Your task to perform on an android device: stop showing notifications on the lock screen Image 0: 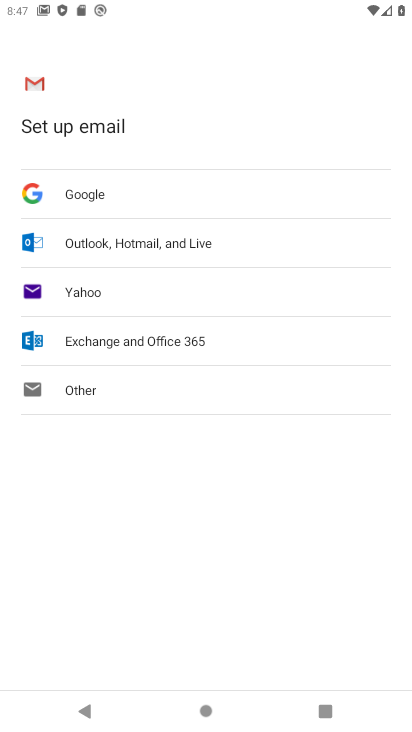
Step 0: press home button
Your task to perform on an android device: stop showing notifications on the lock screen Image 1: 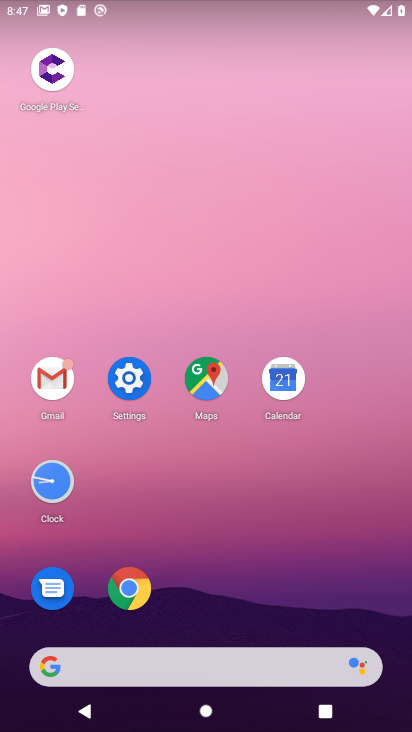
Step 1: click (133, 376)
Your task to perform on an android device: stop showing notifications on the lock screen Image 2: 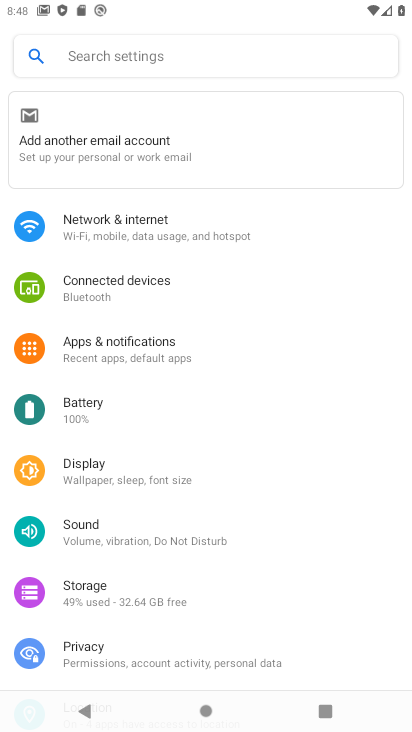
Step 2: click (128, 350)
Your task to perform on an android device: stop showing notifications on the lock screen Image 3: 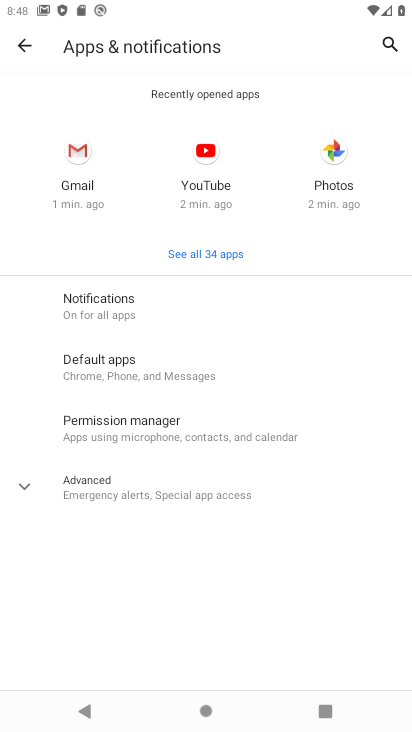
Step 3: click (117, 305)
Your task to perform on an android device: stop showing notifications on the lock screen Image 4: 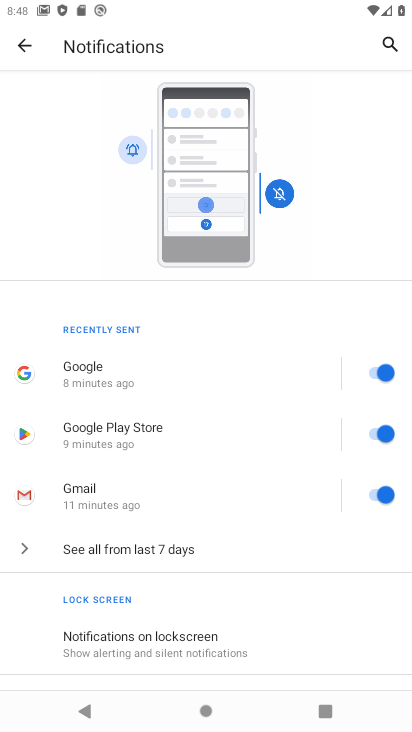
Step 4: click (85, 637)
Your task to perform on an android device: stop showing notifications on the lock screen Image 5: 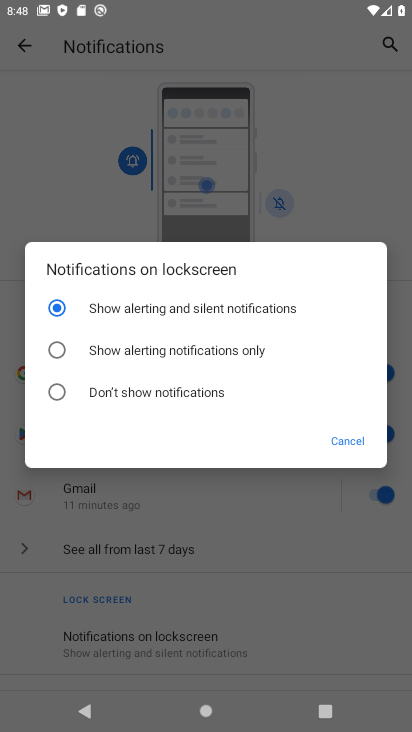
Step 5: click (56, 395)
Your task to perform on an android device: stop showing notifications on the lock screen Image 6: 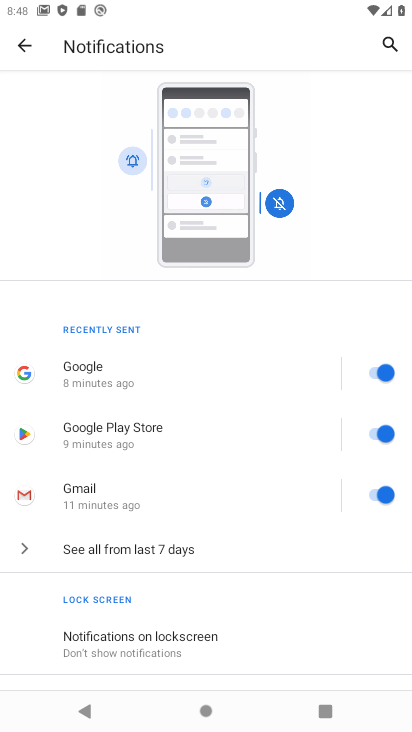
Step 6: task complete